Your task to perform on an android device: Open calendar and show me the first week of next month Image 0: 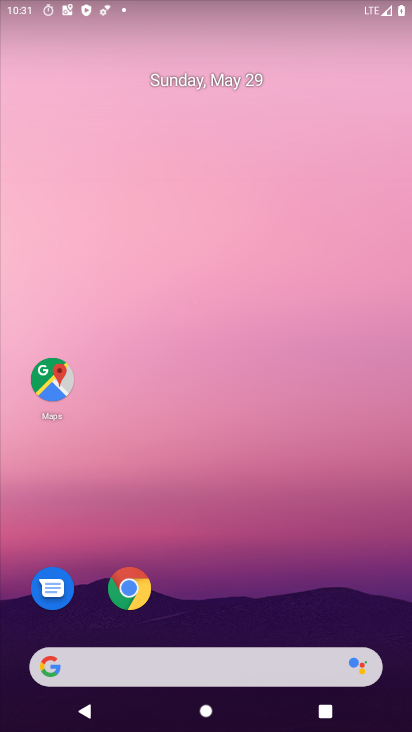
Step 0: drag from (236, 609) to (229, 162)
Your task to perform on an android device: Open calendar and show me the first week of next month Image 1: 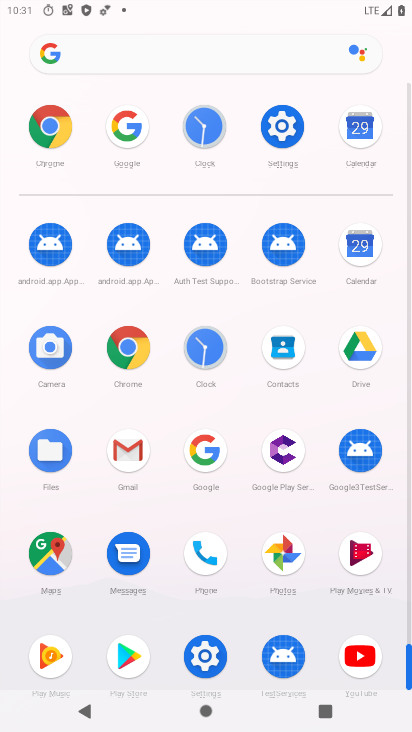
Step 1: click (353, 259)
Your task to perform on an android device: Open calendar and show me the first week of next month Image 2: 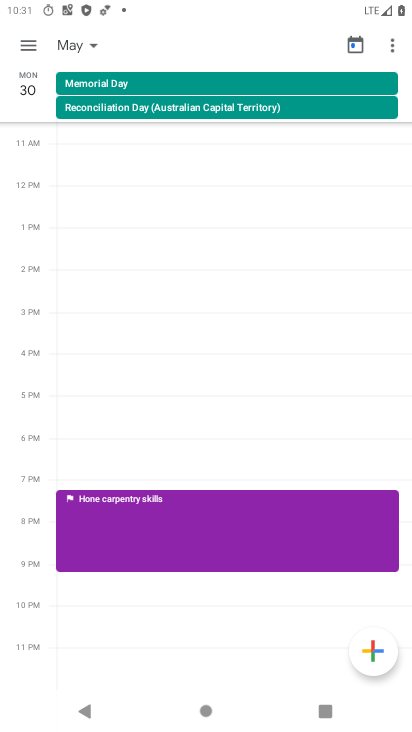
Step 2: click (71, 47)
Your task to perform on an android device: Open calendar and show me the first week of next month Image 3: 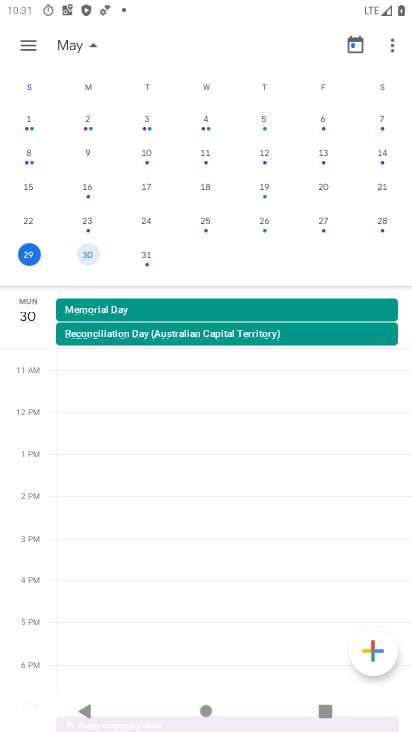
Step 3: drag from (282, 180) to (1, 163)
Your task to perform on an android device: Open calendar and show me the first week of next month Image 4: 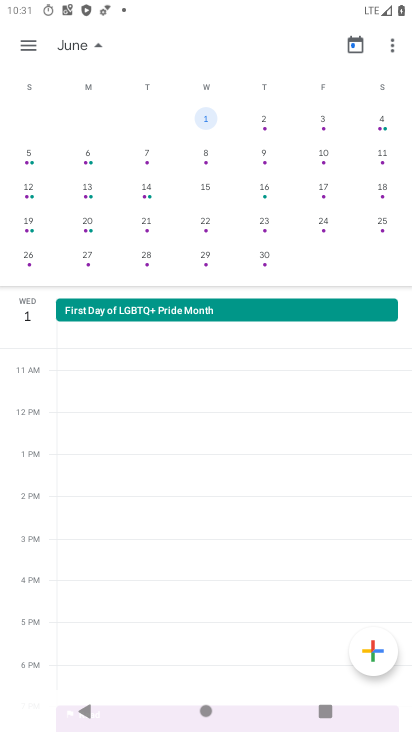
Step 4: click (208, 125)
Your task to perform on an android device: Open calendar and show me the first week of next month Image 5: 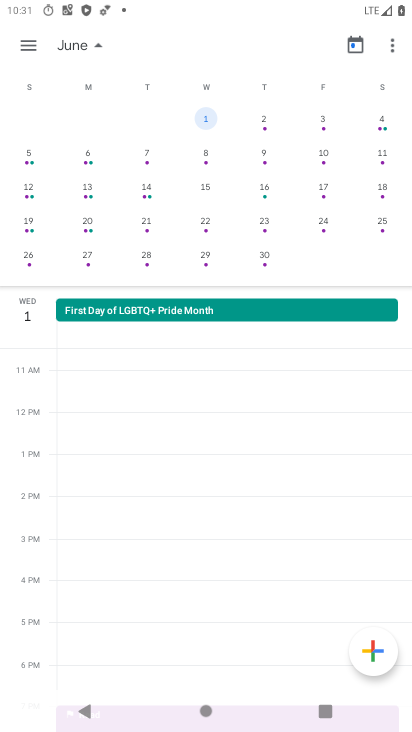
Step 5: click (24, 36)
Your task to perform on an android device: Open calendar and show me the first week of next month Image 6: 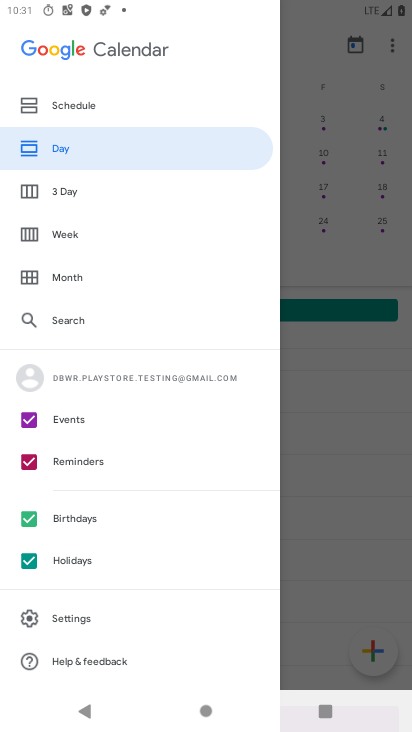
Step 6: click (69, 239)
Your task to perform on an android device: Open calendar and show me the first week of next month Image 7: 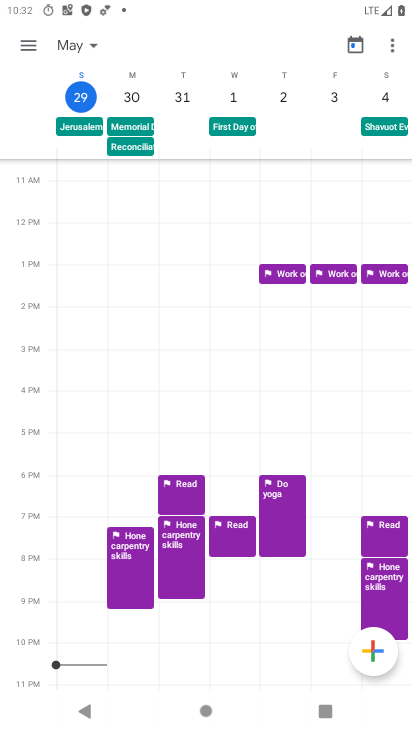
Step 7: task complete